Your task to perform on an android device: move a message to another label in the gmail app Image 0: 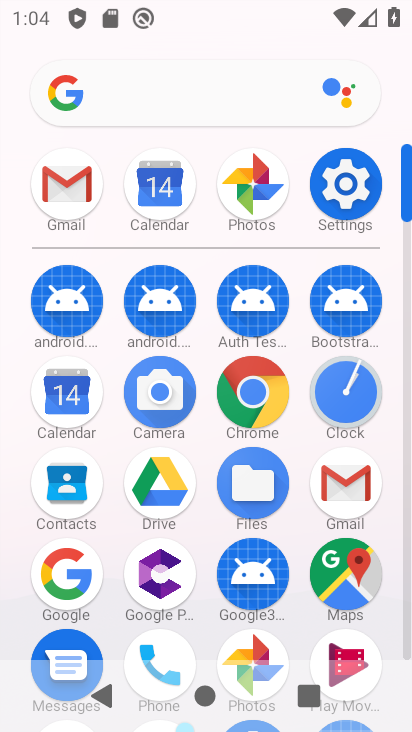
Step 0: click (348, 478)
Your task to perform on an android device: move a message to another label in the gmail app Image 1: 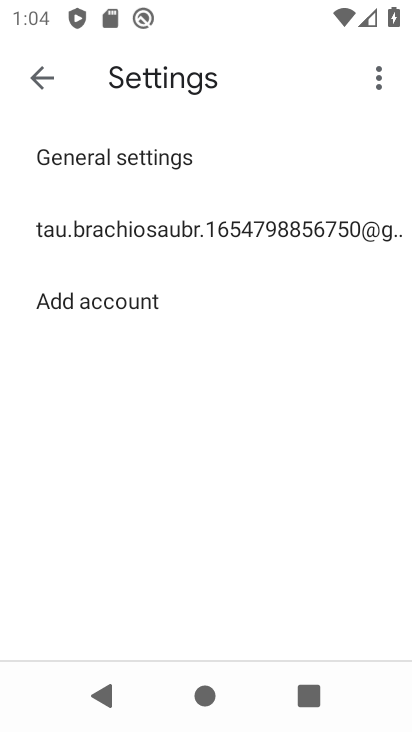
Step 1: press back button
Your task to perform on an android device: move a message to another label in the gmail app Image 2: 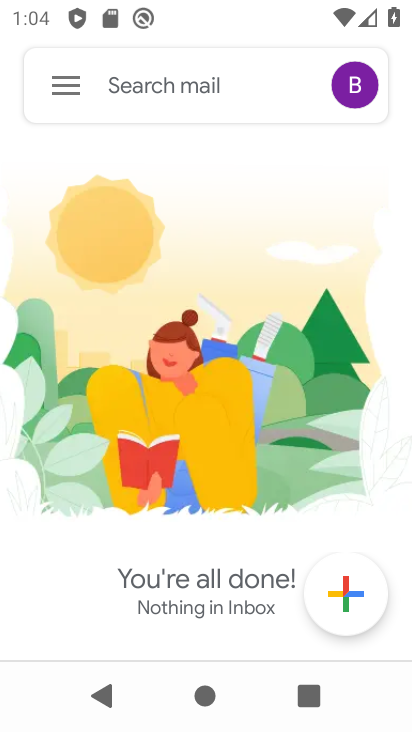
Step 2: click (77, 90)
Your task to perform on an android device: move a message to another label in the gmail app Image 3: 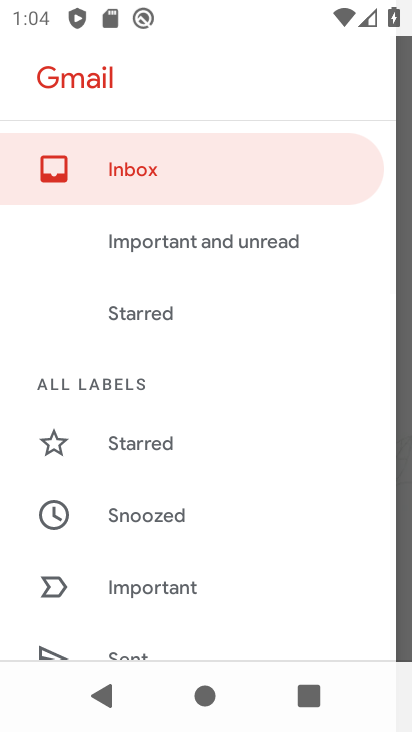
Step 3: drag from (305, 363) to (309, 283)
Your task to perform on an android device: move a message to another label in the gmail app Image 4: 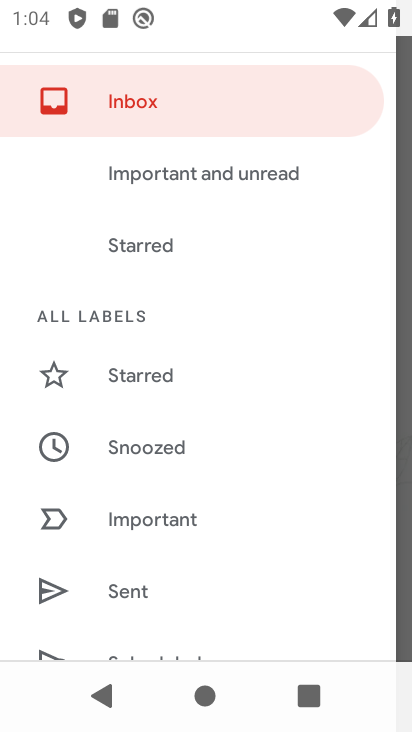
Step 4: drag from (301, 413) to (302, 300)
Your task to perform on an android device: move a message to another label in the gmail app Image 5: 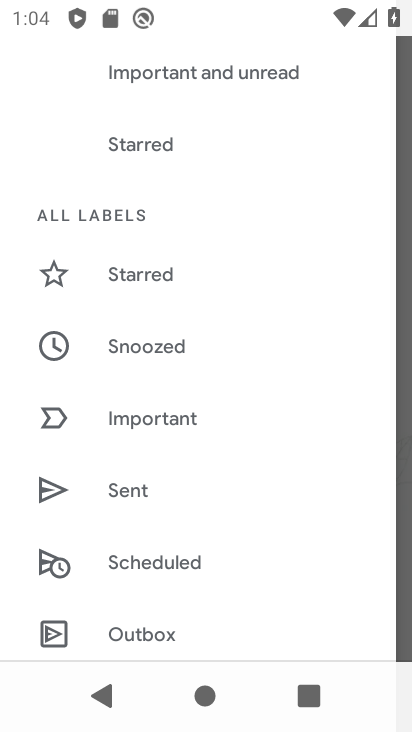
Step 5: drag from (314, 446) to (322, 348)
Your task to perform on an android device: move a message to another label in the gmail app Image 6: 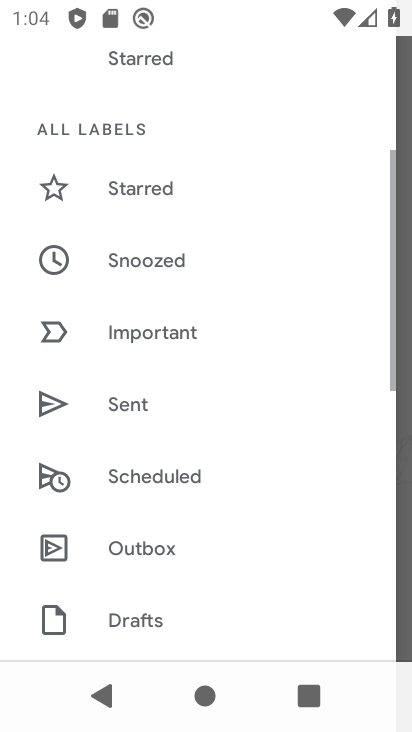
Step 6: drag from (312, 464) to (314, 352)
Your task to perform on an android device: move a message to another label in the gmail app Image 7: 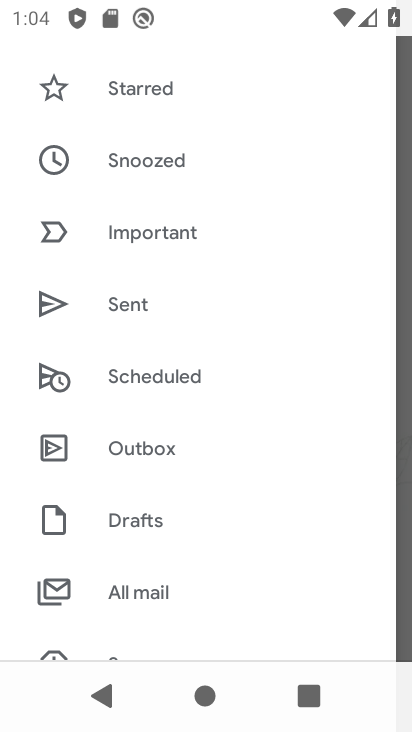
Step 7: drag from (308, 455) to (309, 373)
Your task to perform on an android device: move a message to another label in the gmail app Image 8: 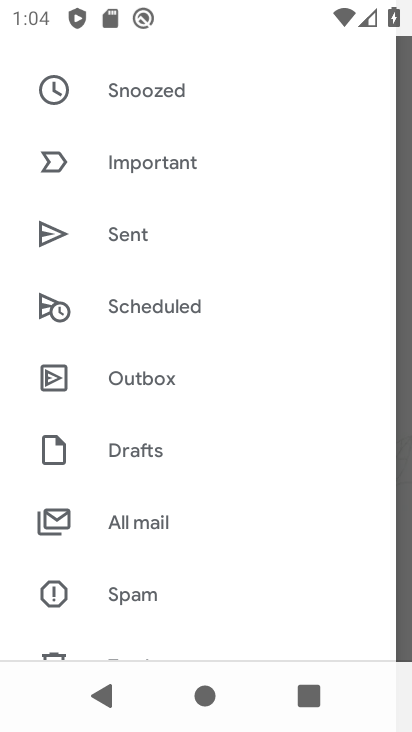
Step 8: drag from (318, 501) to (317, 391)
Your task to perform on an android device: move a message to another label in the gmail app Image 9: 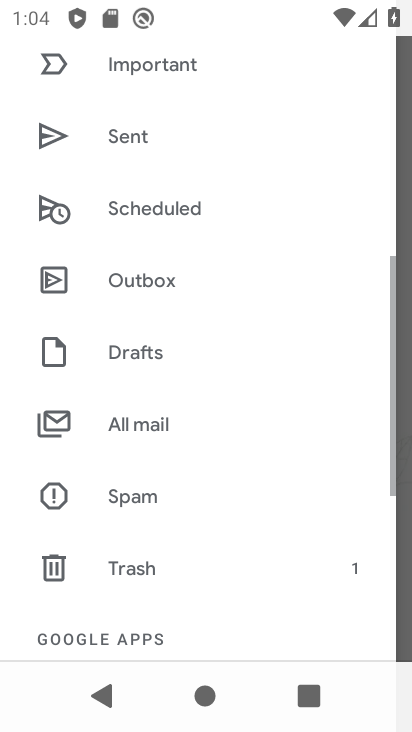
Step 9: click (195, 436)
Your task to perform on an android device: move a message to another label in the gmail app Image 10: 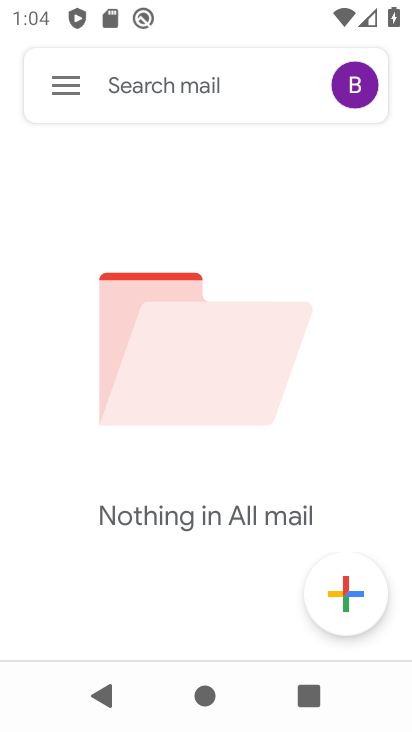
Step 10: task complete